Your task to perform on an android device: change the upload size in google photos Image 0: 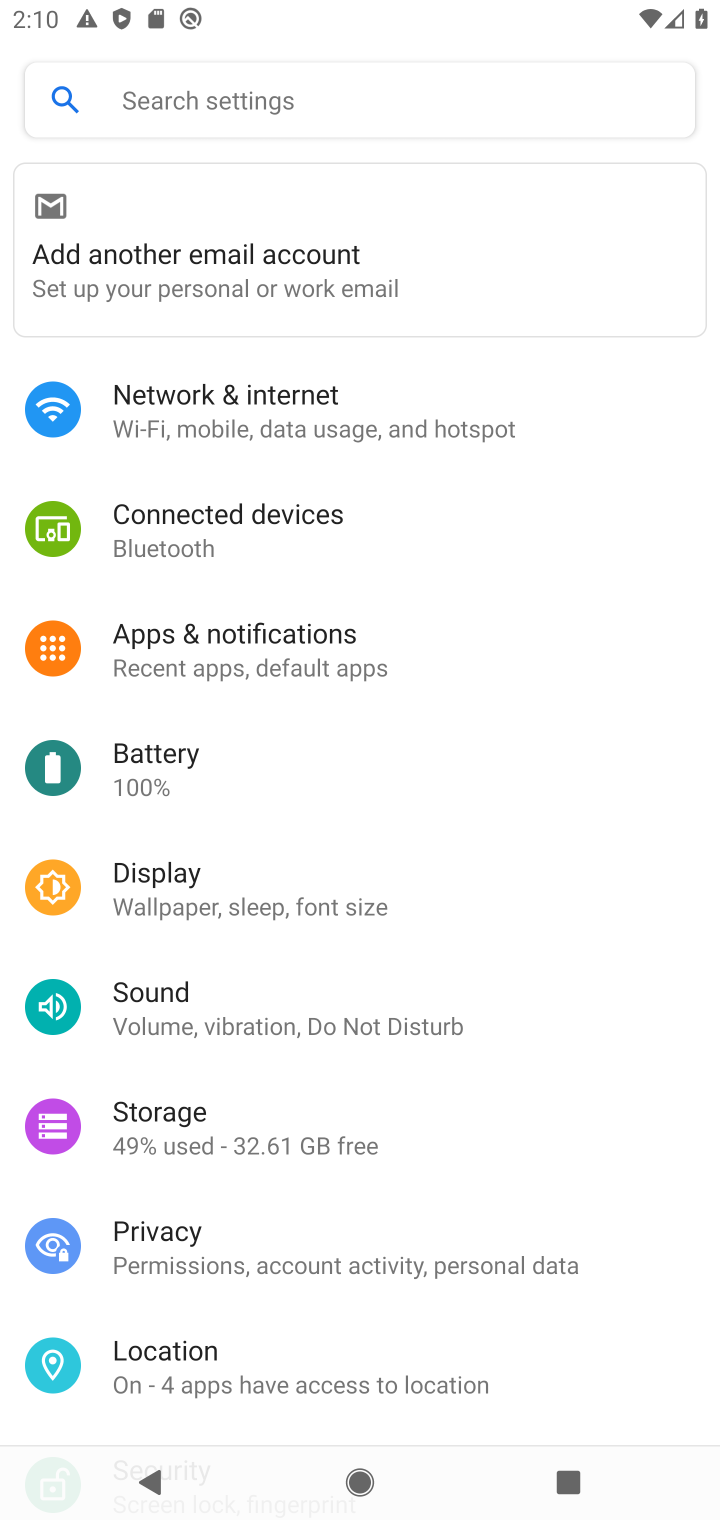
Step 0: press back button
Your task to perform on an android device: change the upload size in google photos Image 1: 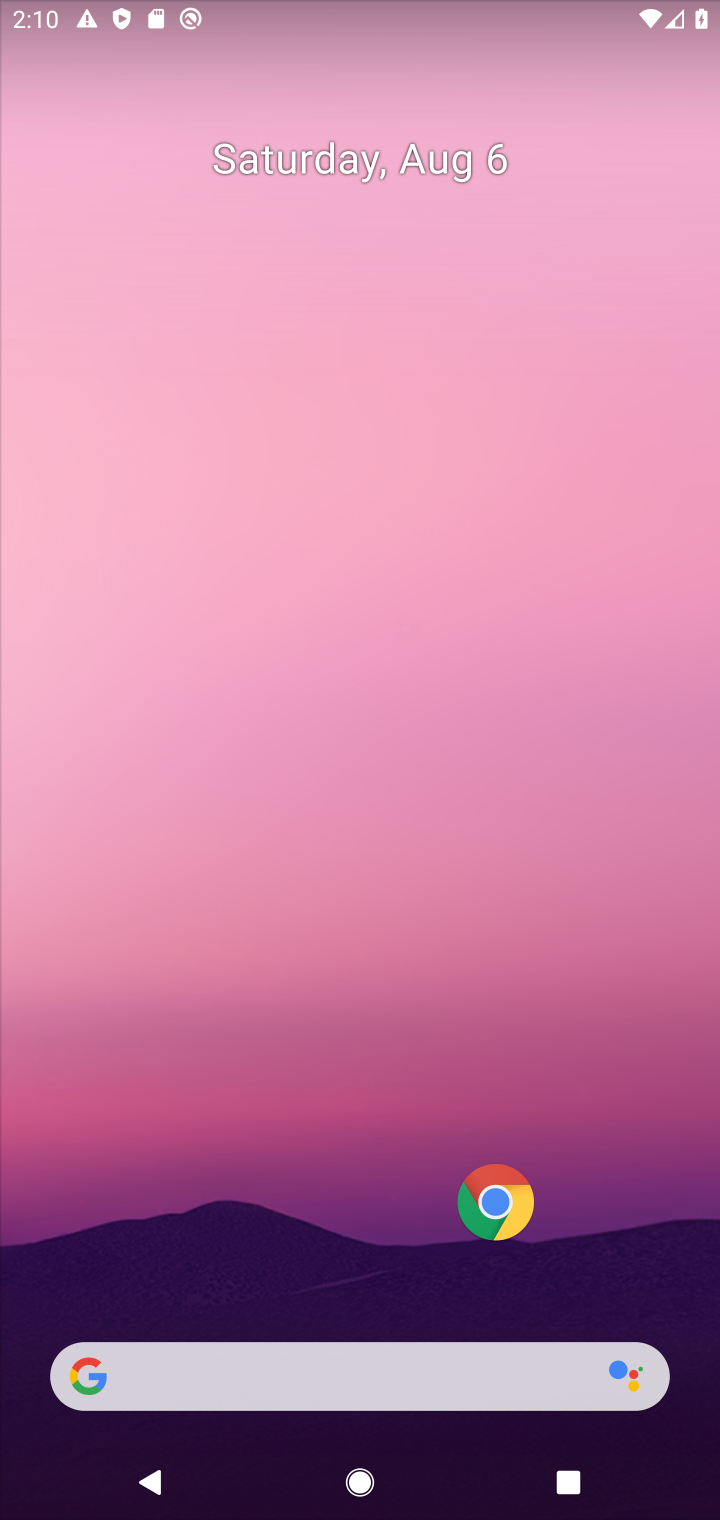
Step 1: click (384, 351)
Your task to perform on an android device: change the upload size in google photos Image 2: 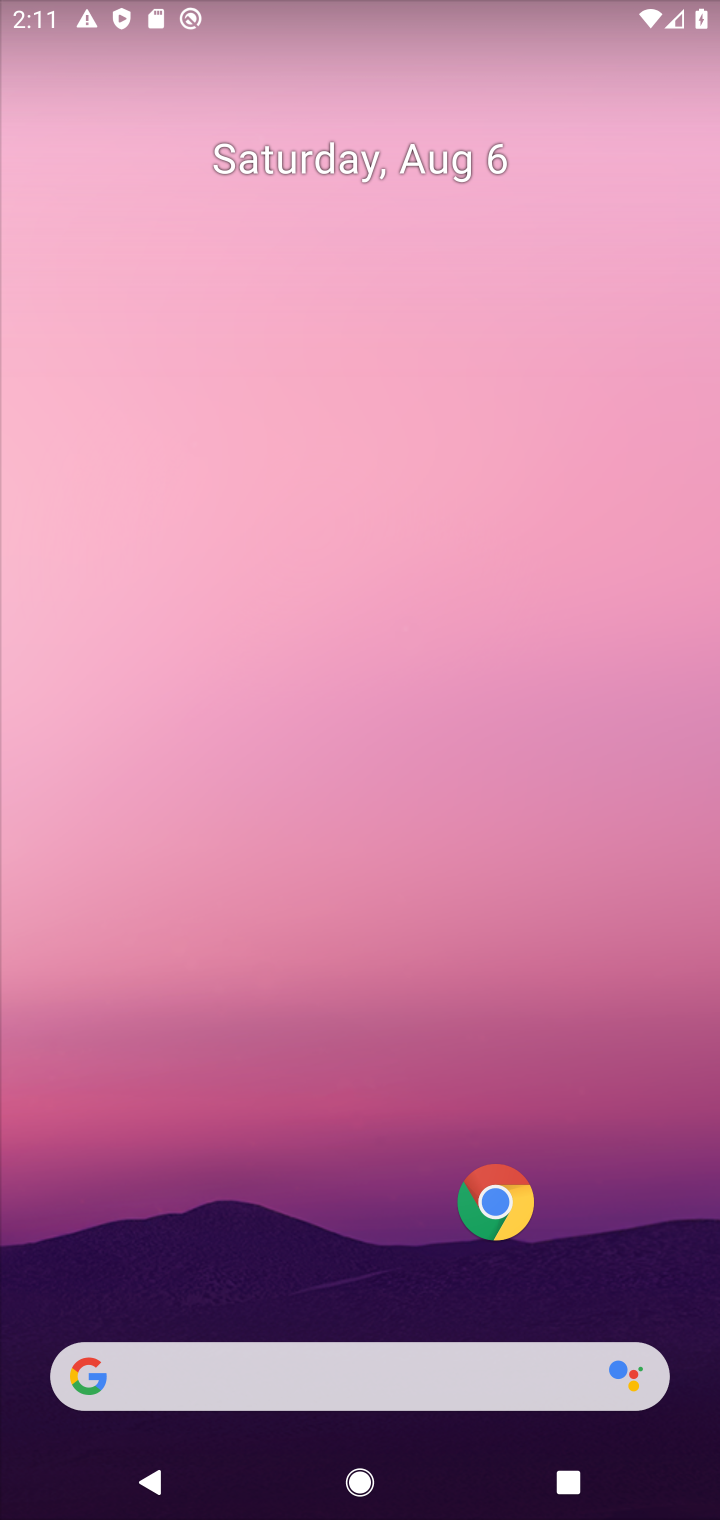
Step 2: drag from (358, 499) to (369, 274)
Your task to perform on an android device: change the upload size in google photos Image 3: 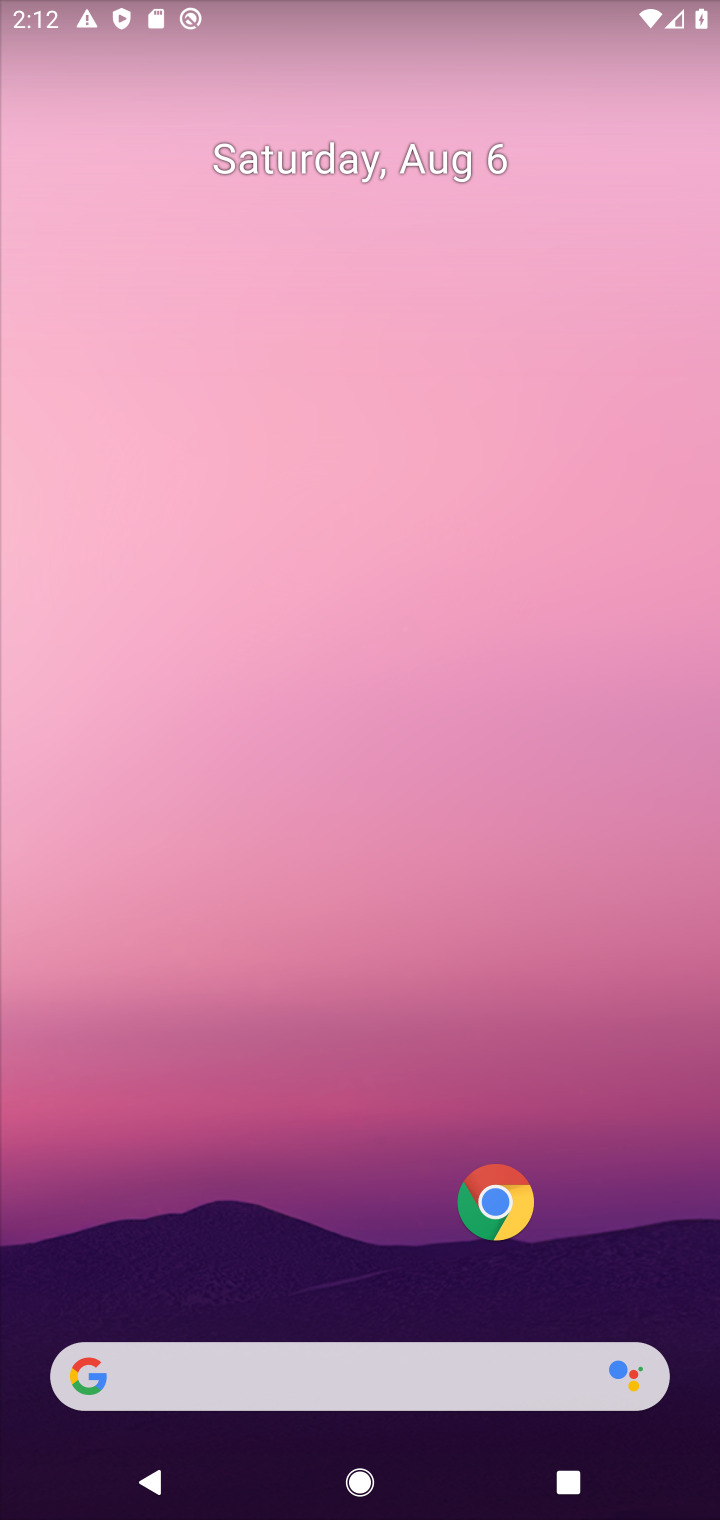
Step 3: drag from (293, 1041) to (356, 270)
Your task to perform on an android device: change the upload size in google photos Image 4: 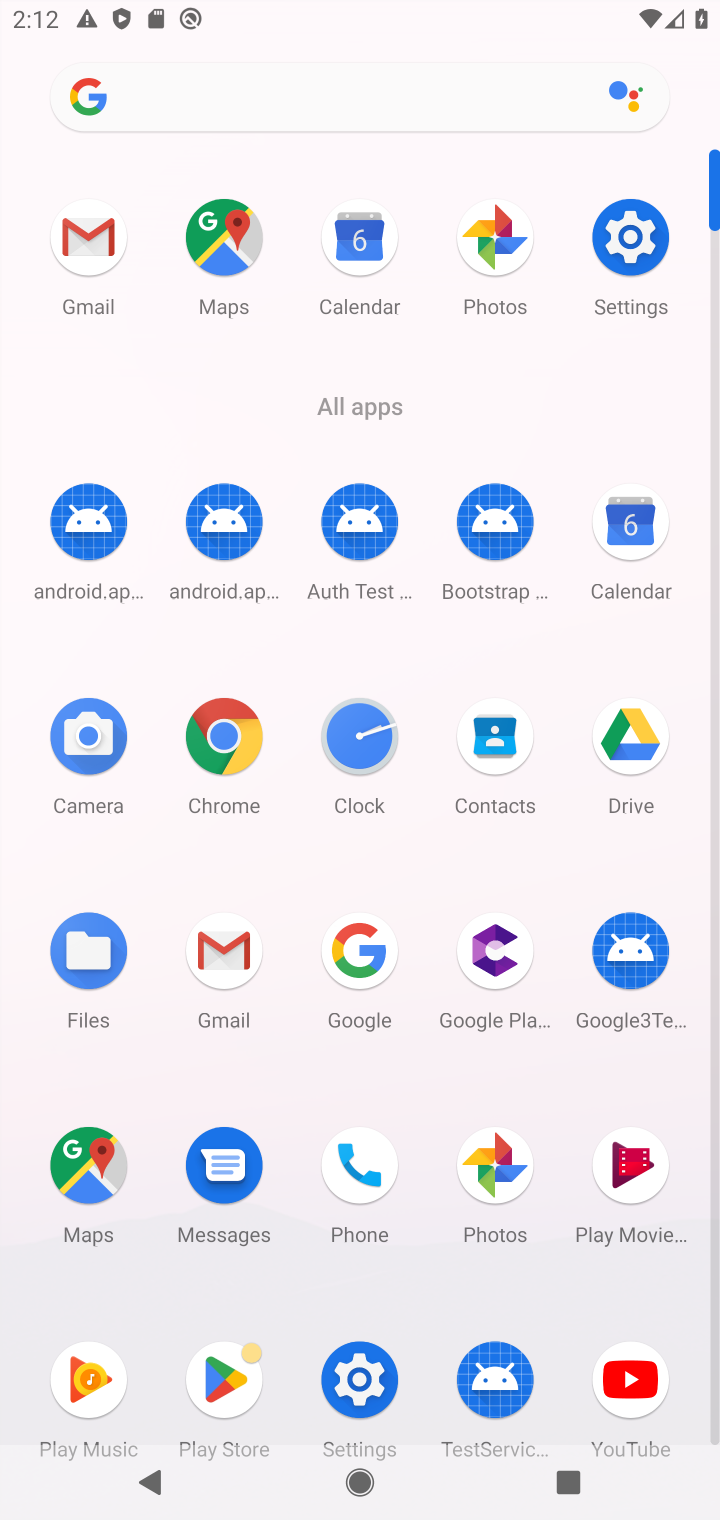
Step 4: click (490, 1162)
Your task to perform on an android device: change the upload size in google photos Image 5: 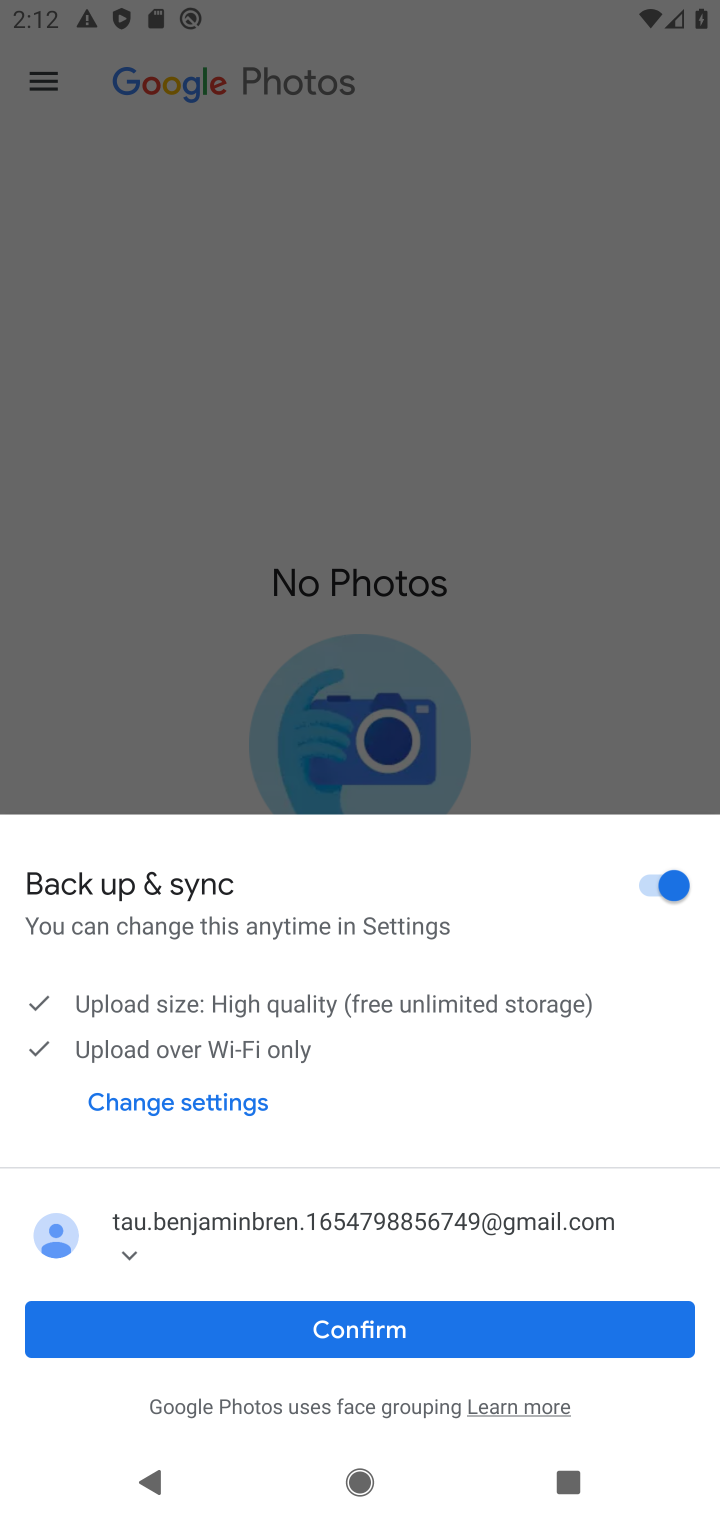
Step 5: click (317, 1368)
Your task to perform on an android device: change the upload size in google photos Image 6: 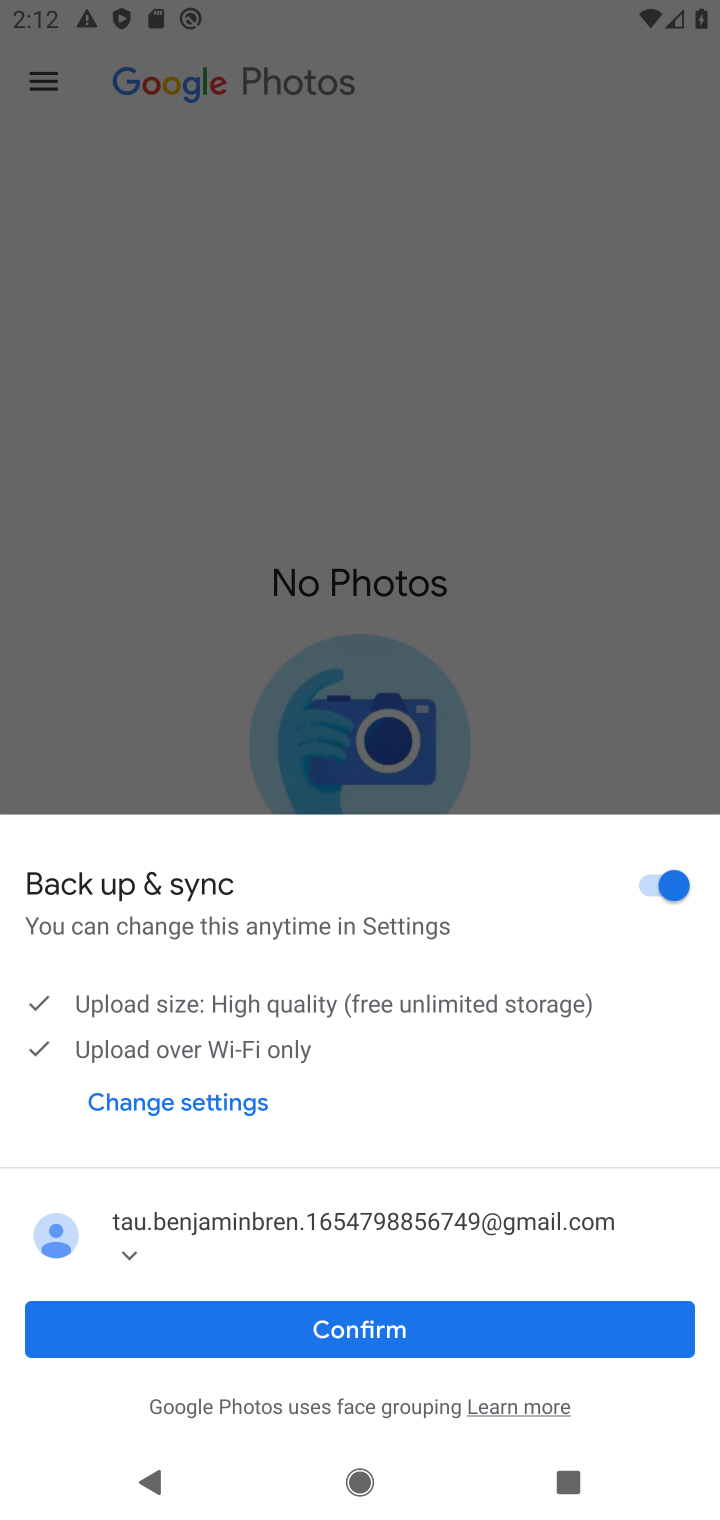
Step 6: click (357, 1319)
Your task to perform on an android device: change the upload size in google photos Image 7: 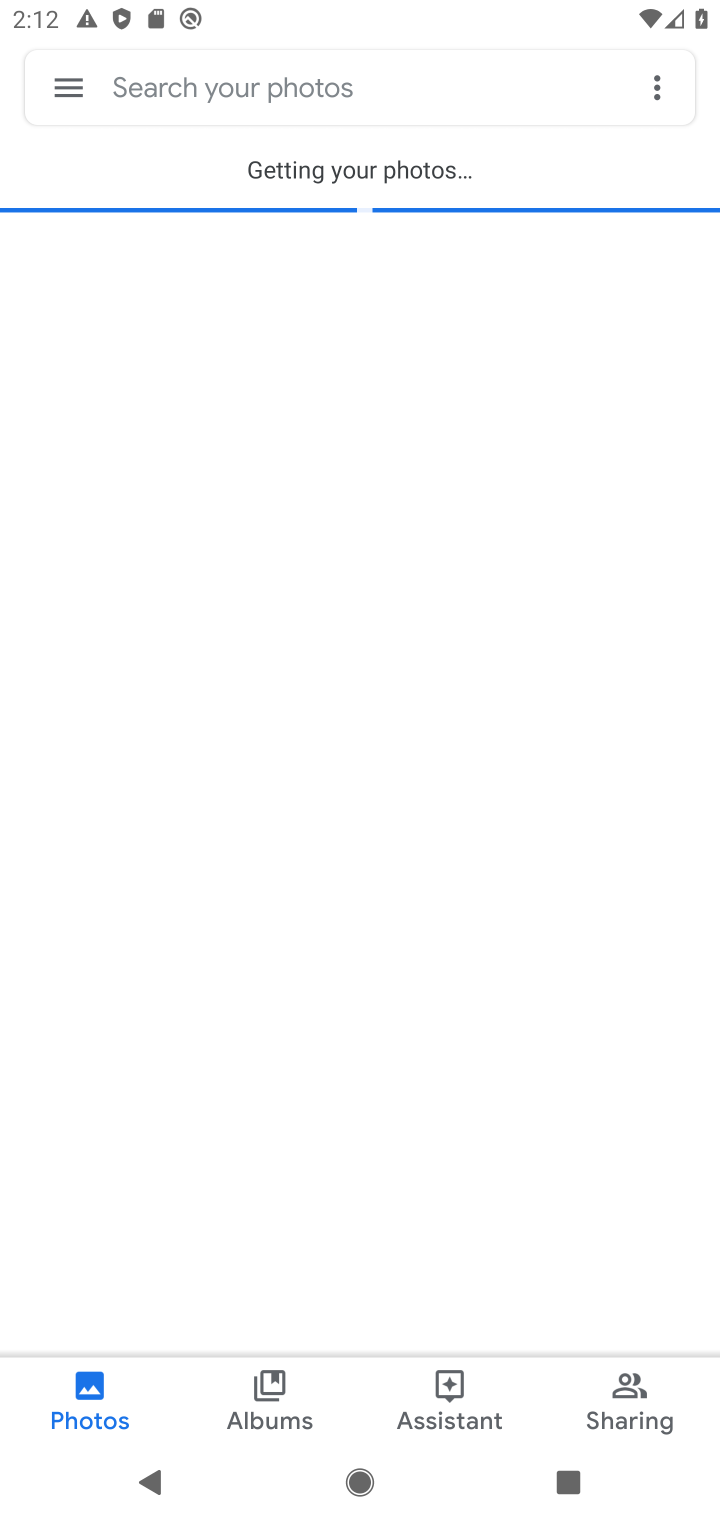
Step 7: click (55, 80)
Your task to perform on an android device: change the upload size in google photos Image 8: 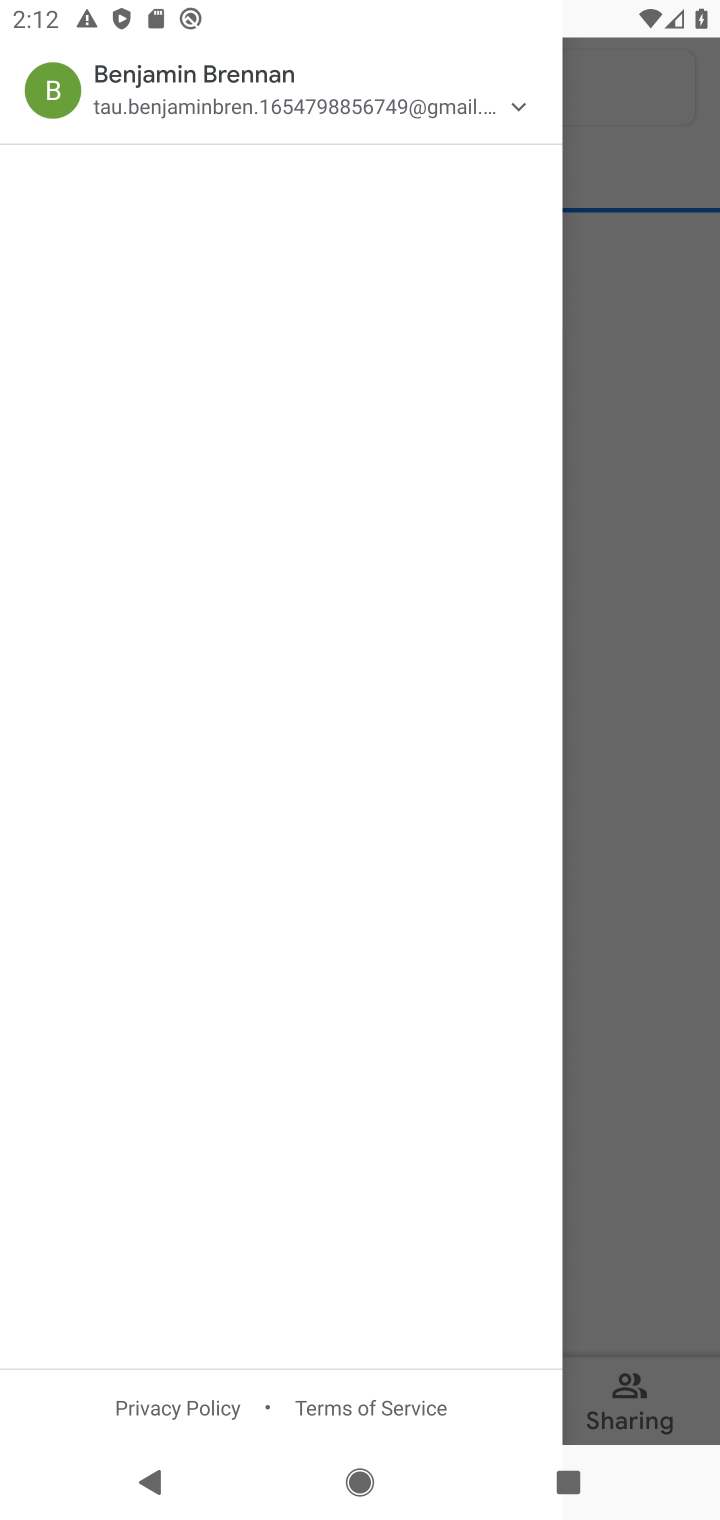
Step 8: click (222, 80)
Your task to perform on an android device: change the upload size in google photos Image 9: 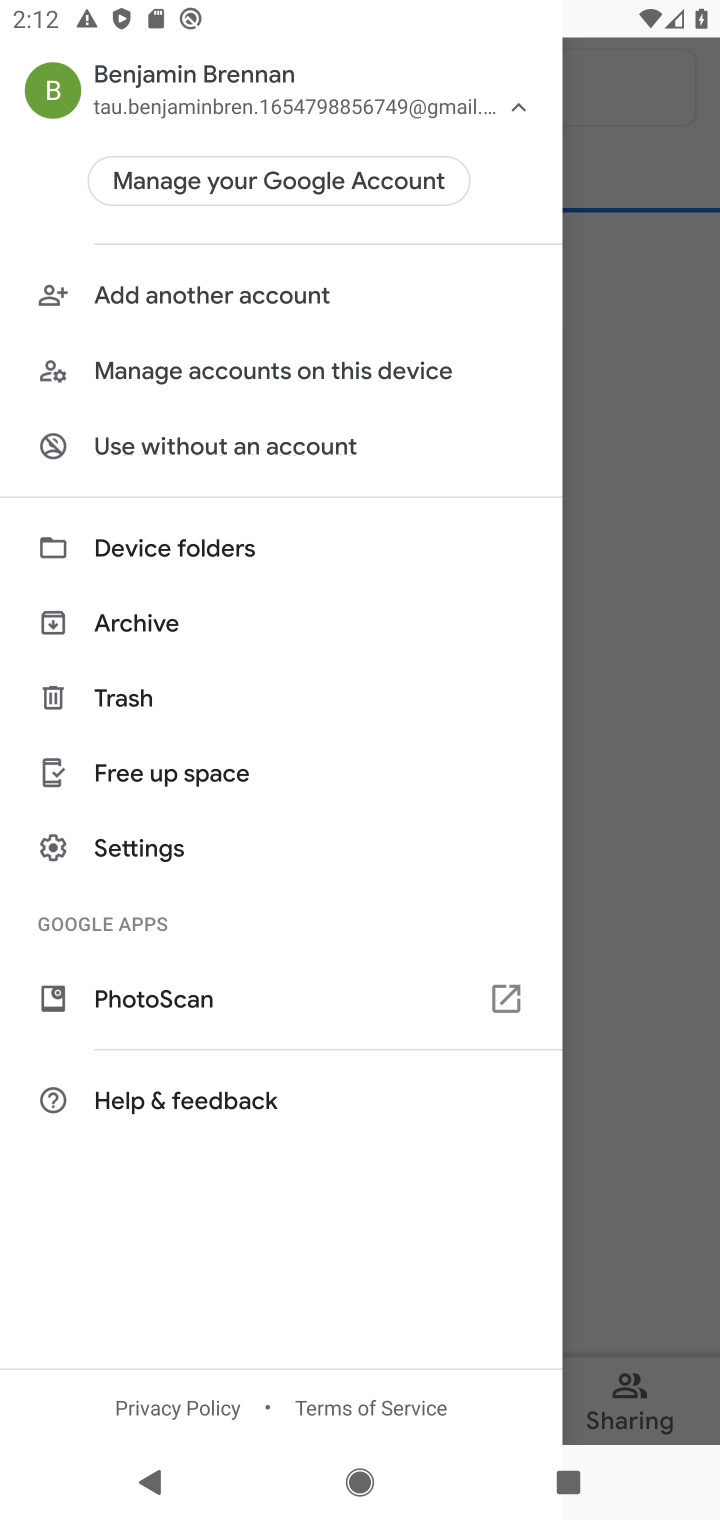
Step 9: click (131, 840)
Your task to perform on an android device: change the upload size in google photos Image 10: 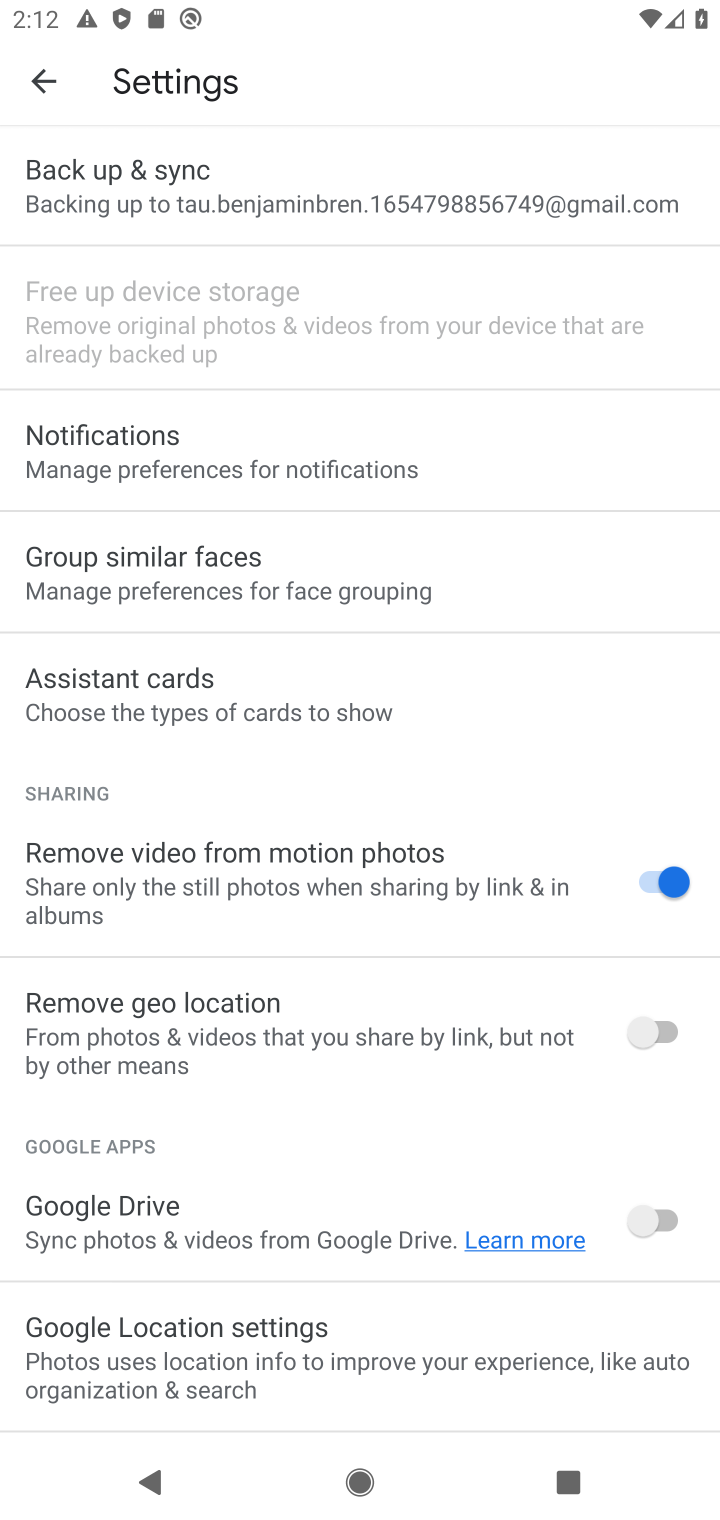
Step 10: click (247, 178)
Your task to perform on an android device: change the upload size in google photos Image 11: 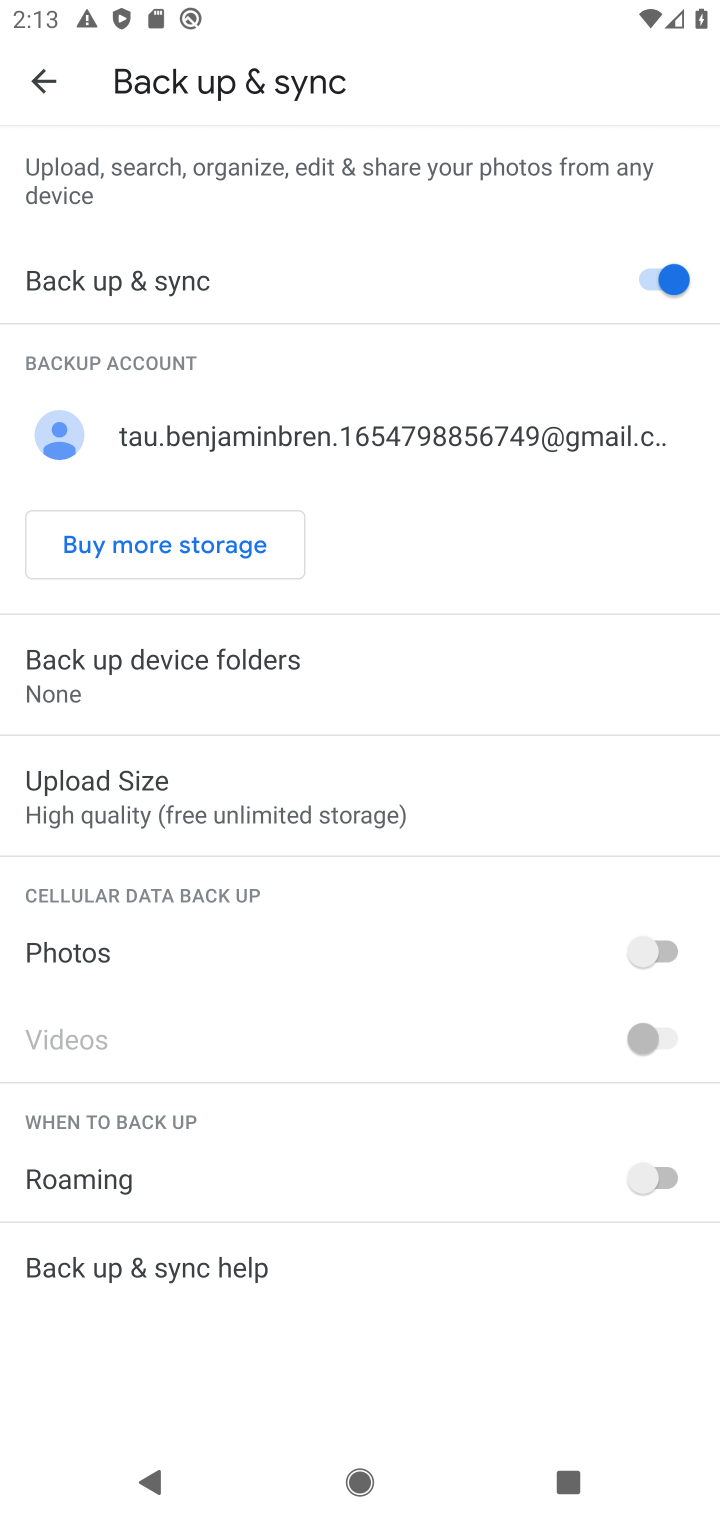
Step 11: click (219, 812)
Your task to perform on an android device: change the upload size in google photos Image 12: 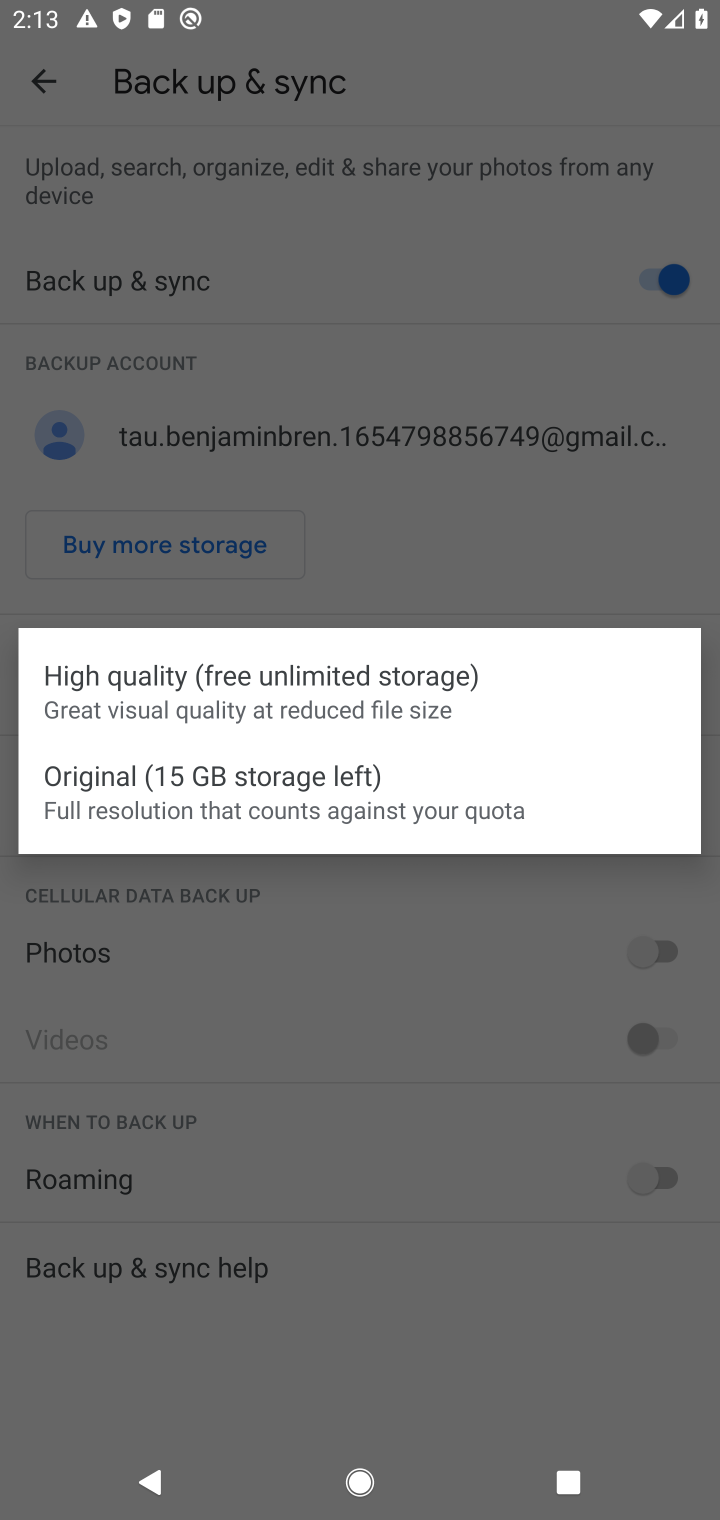
Step 12: click (213, 694)
Your task to perform on an android device: change the upload size in google photos Image 13: 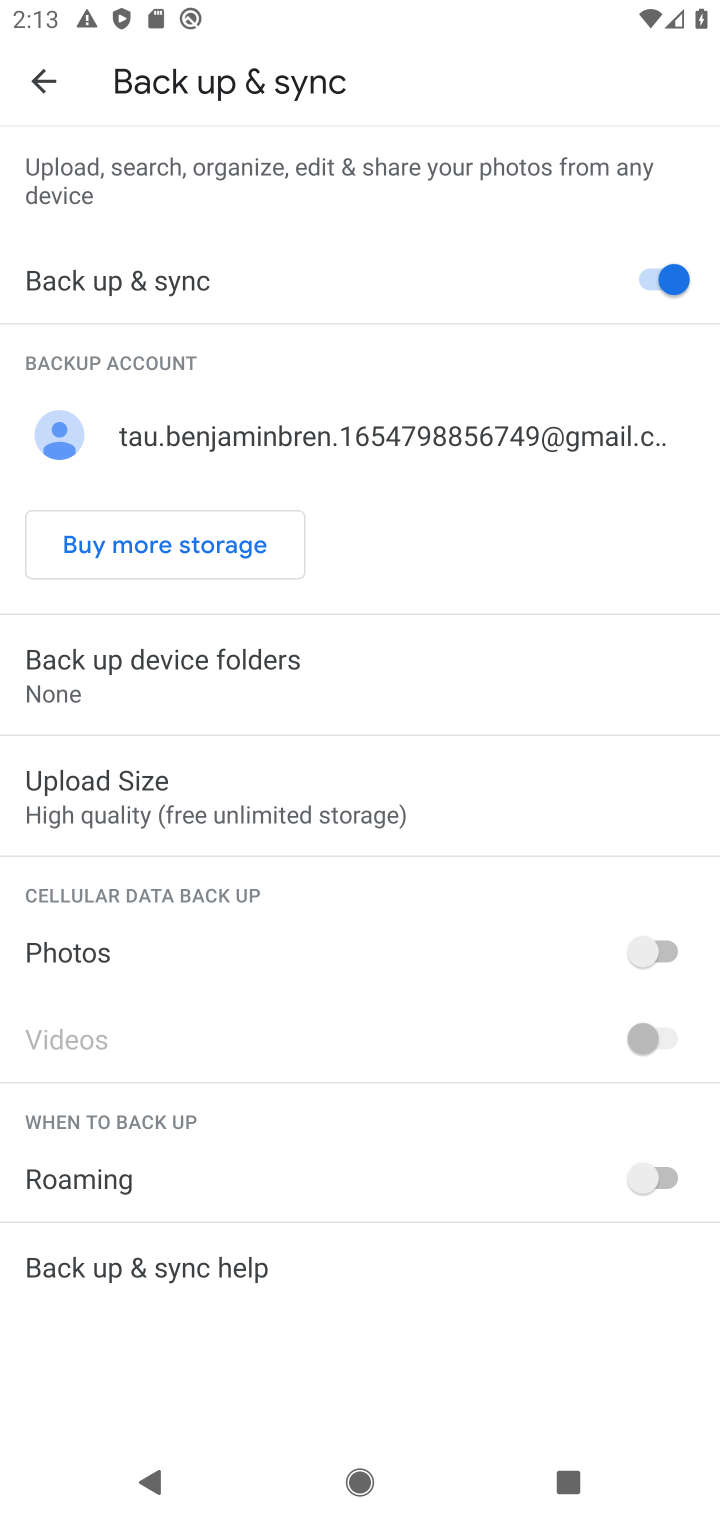
Step 13: task complete